Your task to perform on an android device: Go to Google Image 0: 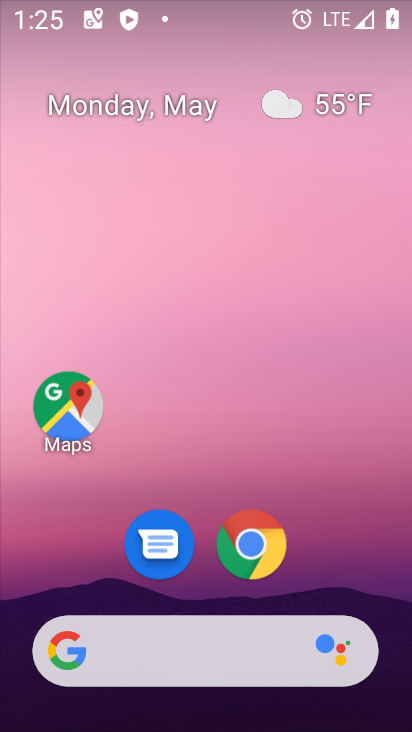
Step 0: click (252, 550)
Your task to perform on an android device: Go to Google Image 1: 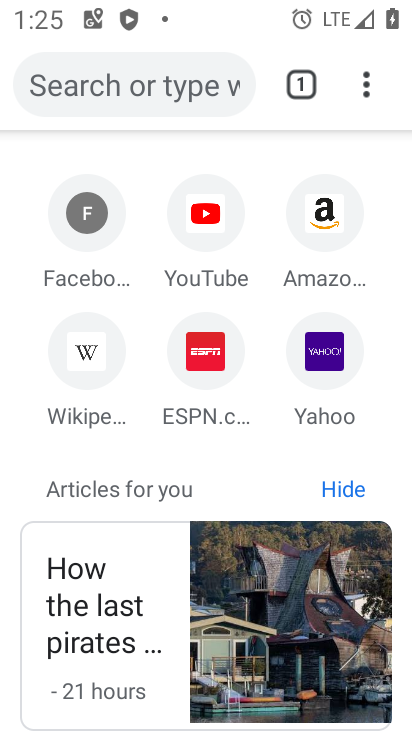
Step 1: task complete